Your task to perform on an android device: When is my next appointment? Image 0: 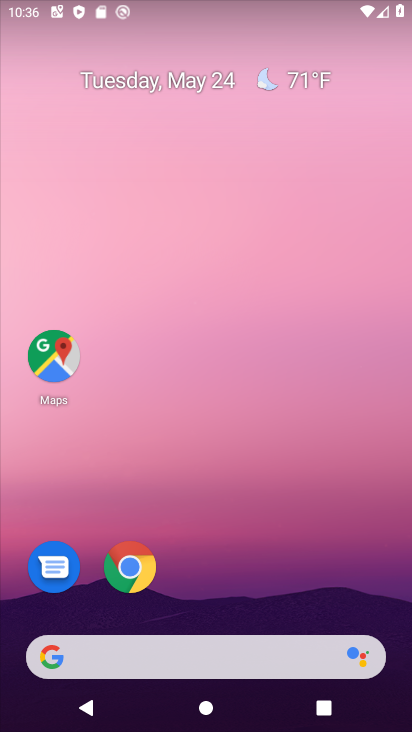
Step 0: drag from (398, 654) to (357, 196)
Your task to perform on an android device: When is my next appointment? Image 1: 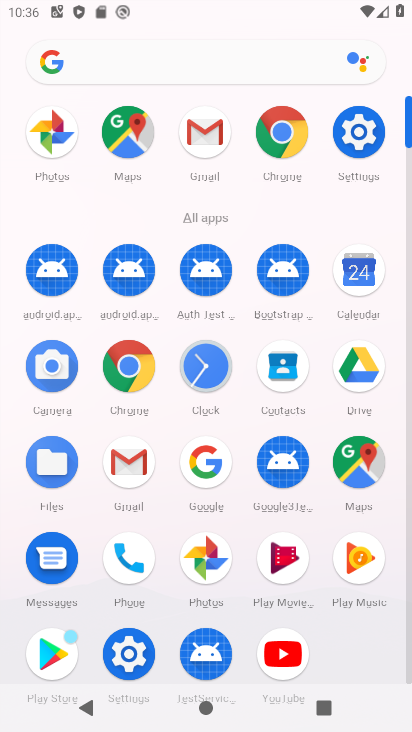
Step 1: click (357, 272)
Your task to perform on an android device: When is my next appointment? Image 2: 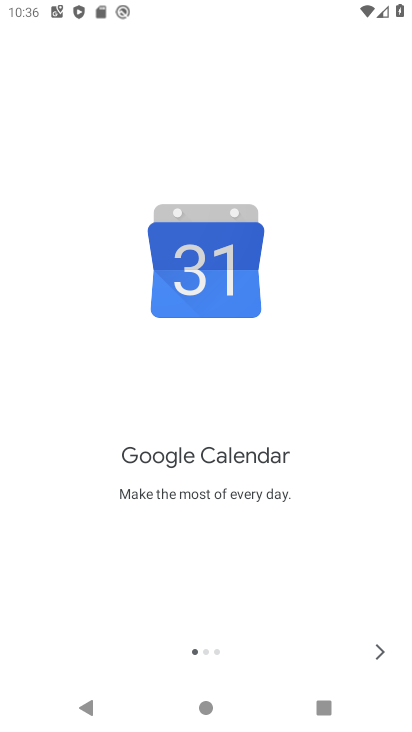
Step 2: click (375, 647)
Your task to perform on an android device: When is my next appointment? Image 3: 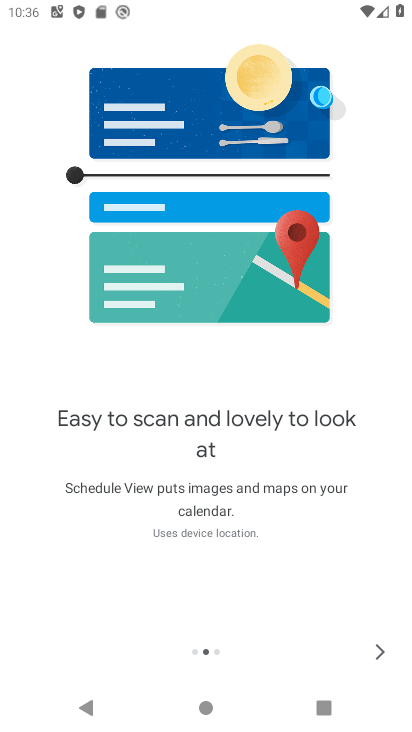
Step 3: click (376, 647)
Your task to perform on an android device: When is my next appointment? Image 4: 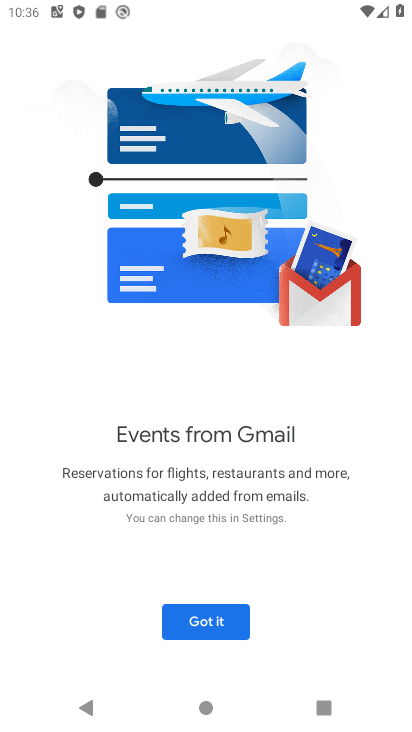
Step 4: click (216, 625)
Your task to perform on an android device: When is my next appointment? Image 5: 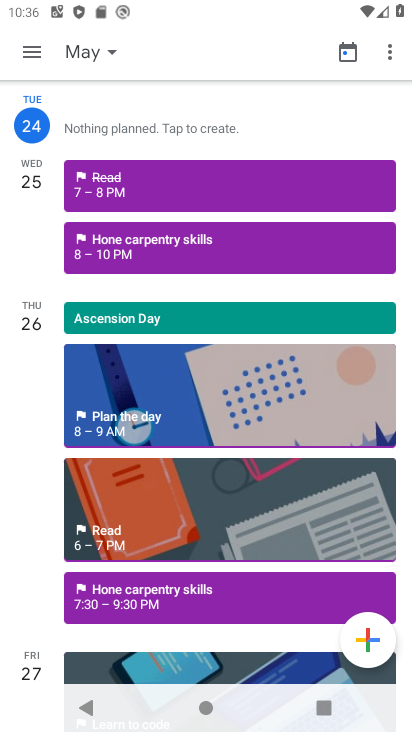
Step 5: click (33, 49)
Your task to perform on an android device: When is my next appointment? Image 6: 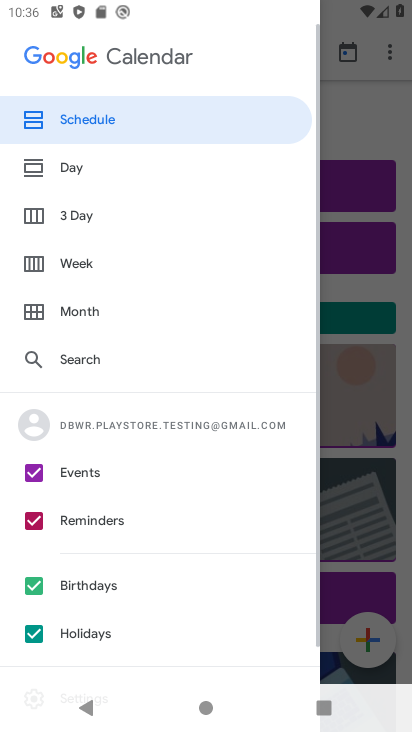
Step 6: click (39, 628)
Your task to perform on an android device: When is my next appointment? Image 7: 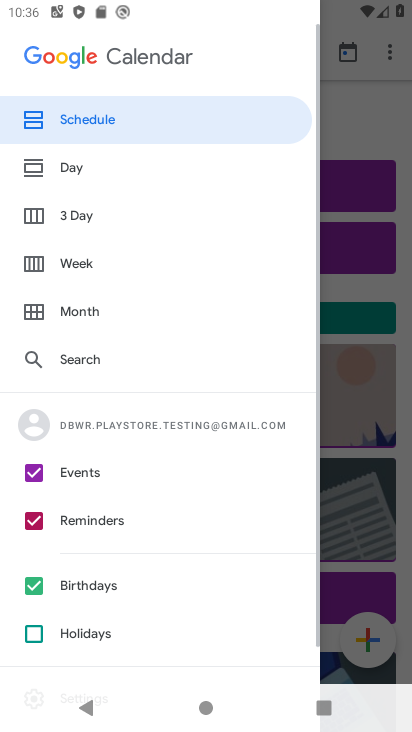
Step 7: click (37, 585)
Your task to perform on an android device: When is my next appointment? Image 8: 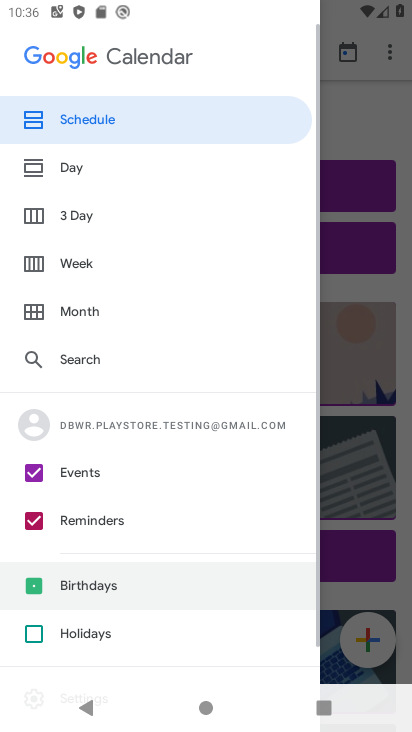
Step 8: click (38, 516)
Your task to perform on an android device: When is my next appointment? Image 9: 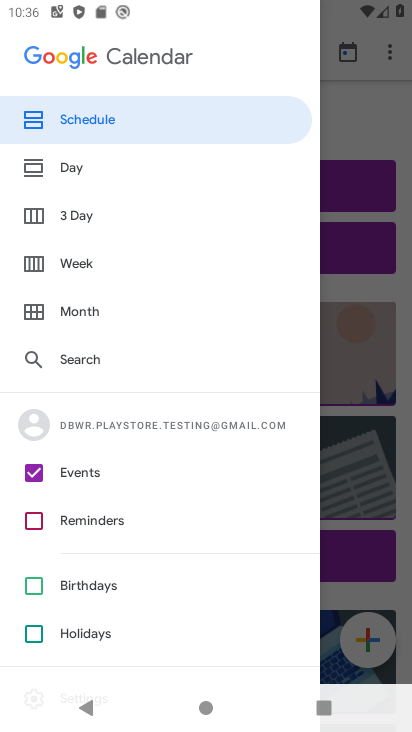
Step 9: click (108, 120)
Your task to perform on an android device: When is my next appointment? Image 10: 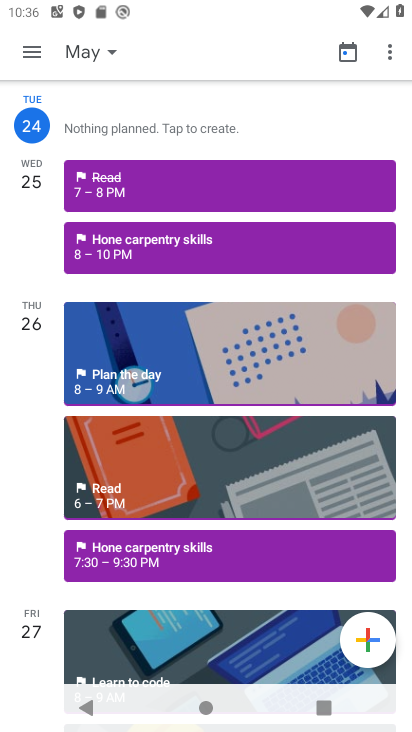
Step 10: task complete